Your task to perform on an android device: delete location history Image 0: 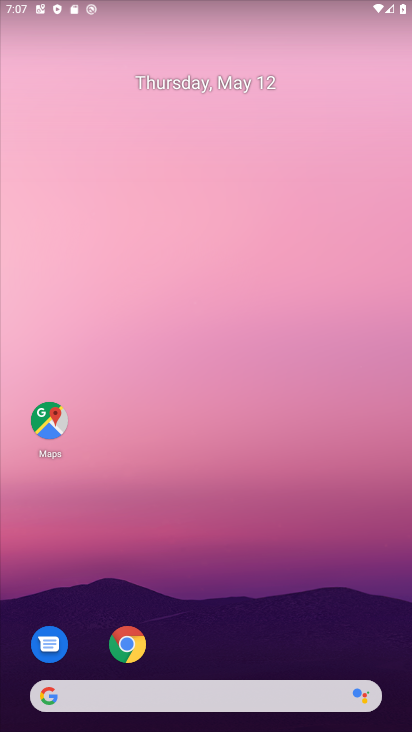
Step 0: drag from (243, 717) to (212, 222)
Your task to perform on an android device: delete location history Image 1: 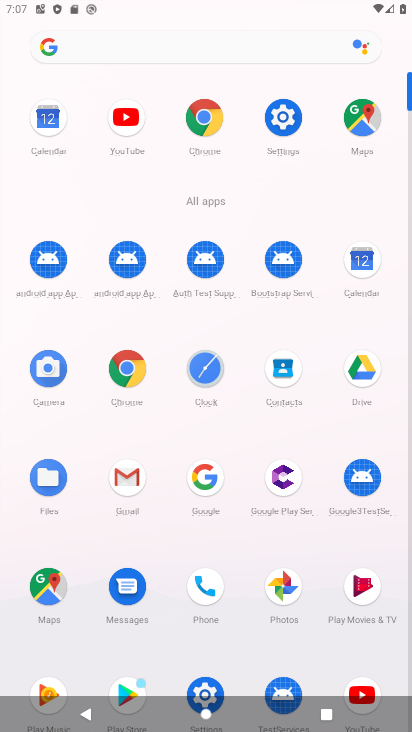
Step 1: click (279, 136)
Your task to perform on an android device: delete location history Image 2: 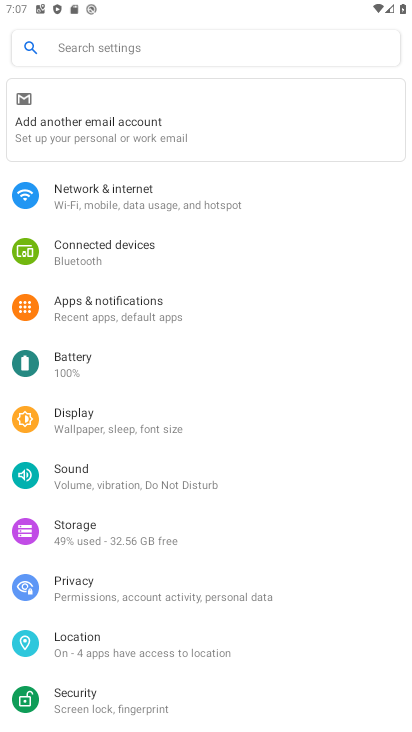
Step 2: click (96, 646)
Your task to perform on an android device: delete location history Image 3: 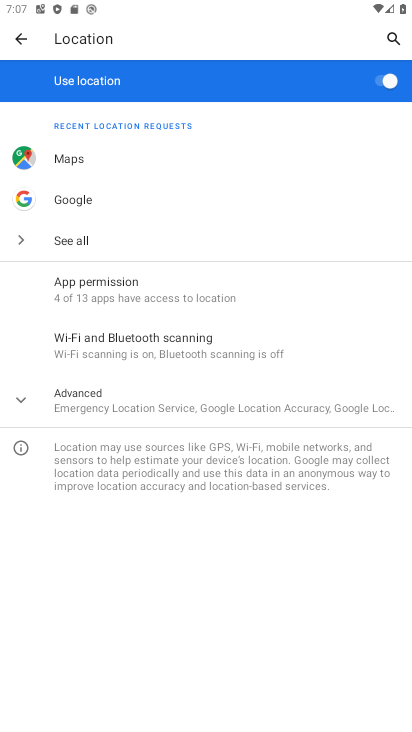
Step 3: click (29, 395)
Your task to perform on an android device: delete location history Image 4: 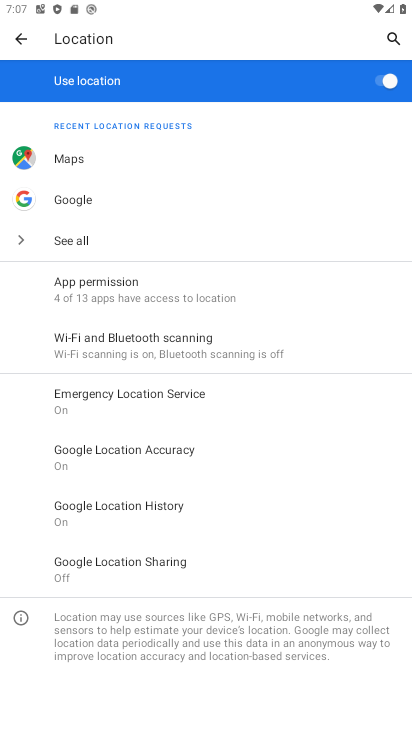
Step 4: click (173, 515)
Your task to perform on an android device: delete location history Image 5: 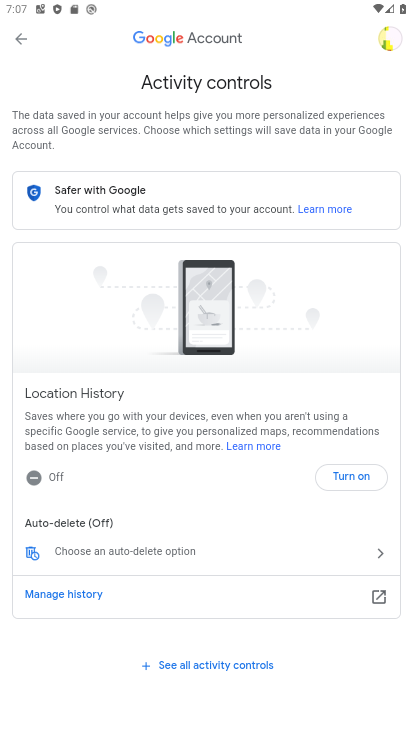
Step 5: click (133, 550)
Your task to perform on an android device: delete location history Image 6: 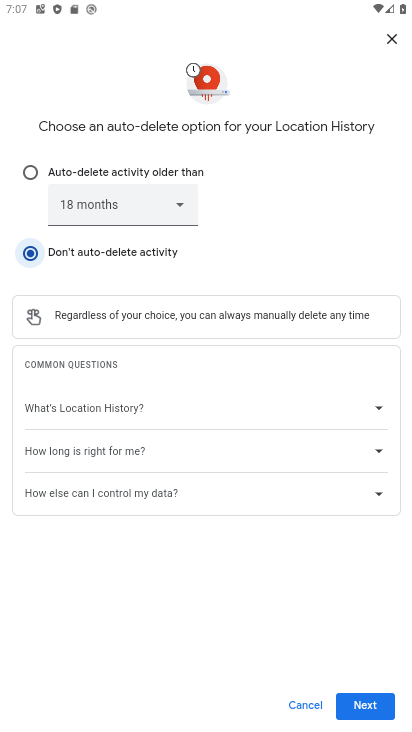
Step 6: task complete